Your task to perform on an android device: toggle airplane mode Image 0: 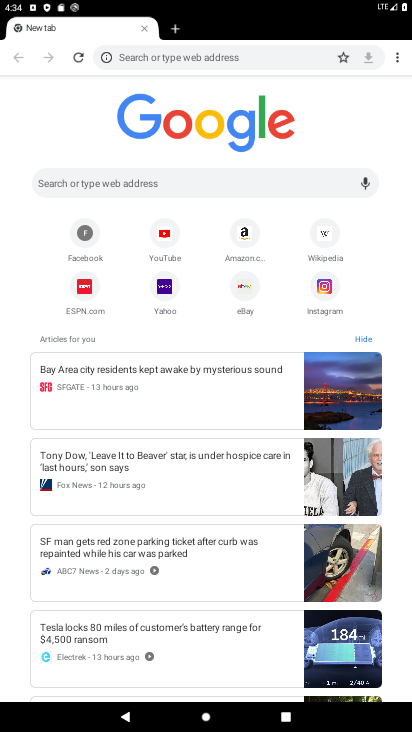
Step 0: drag from (259, 6) to (290, 362)
Your task to perform on an android device: toggle airplane mode Image 1: 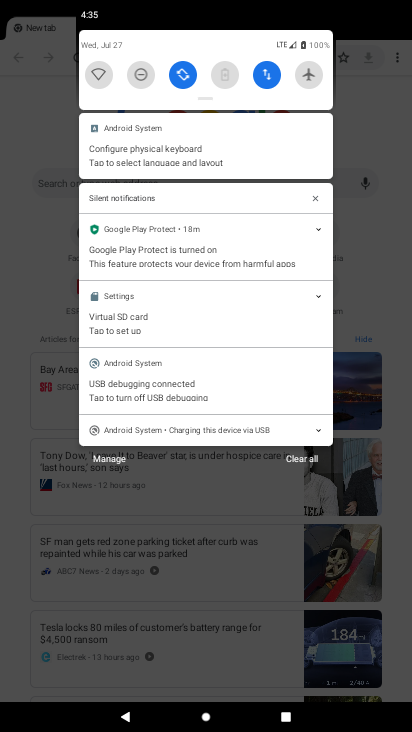
Step 1: click (301, 69)
Your task to perform on an android device: toggle airplane mode Image 2: 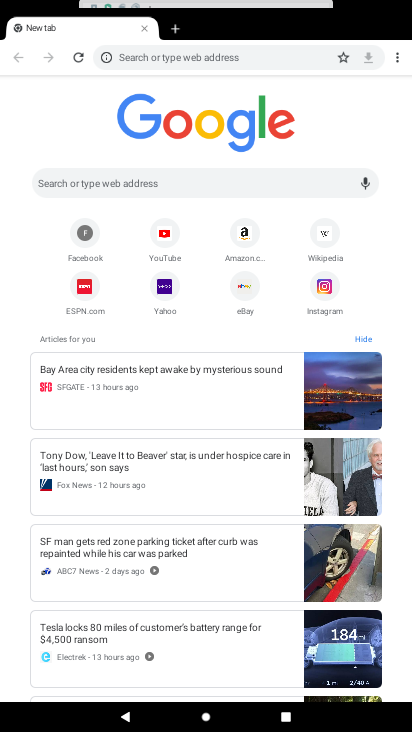
Step 2: click (301, 69)
Your task to perform on an android device: toggle airplane mode Image 3: 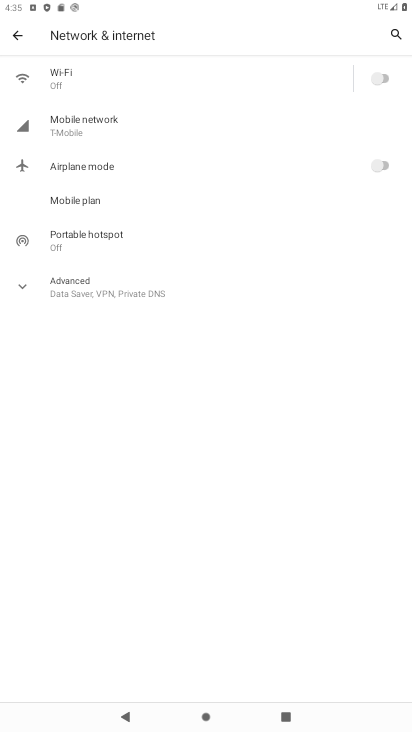
Step 3: task complete